Your task to perform on an android device: toggle notifications settings in the gmail app Image 0: 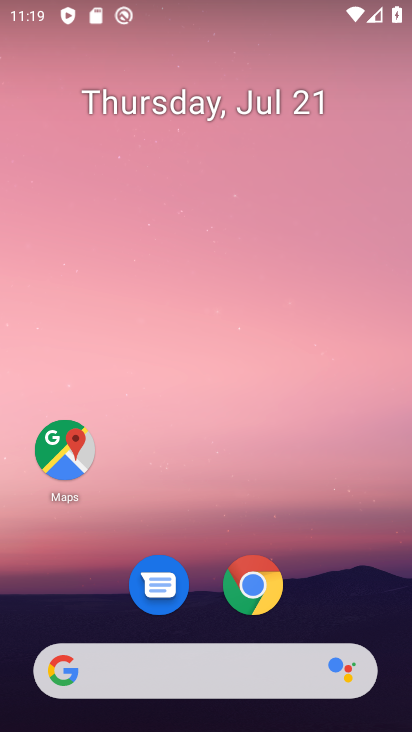
Step 0: drag from (189, 679) to (349, 177)
Your task to perform on an android device: toggle notifications settings in the gmail app Image 1: 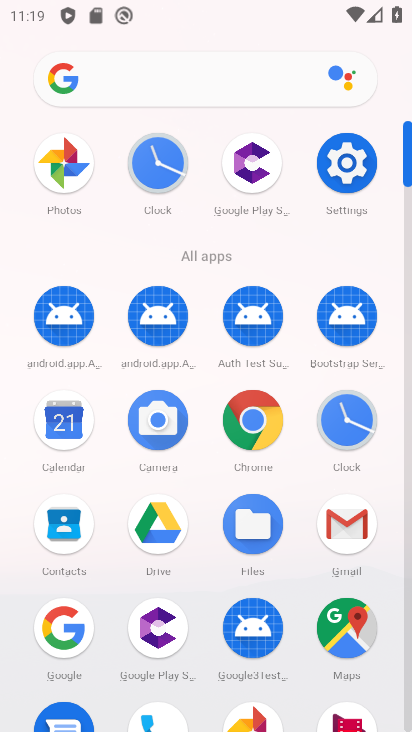
Step 1: click (359, 527)
Your task to perform on an android device: toggle notifications settings in the gmail app Image 2: 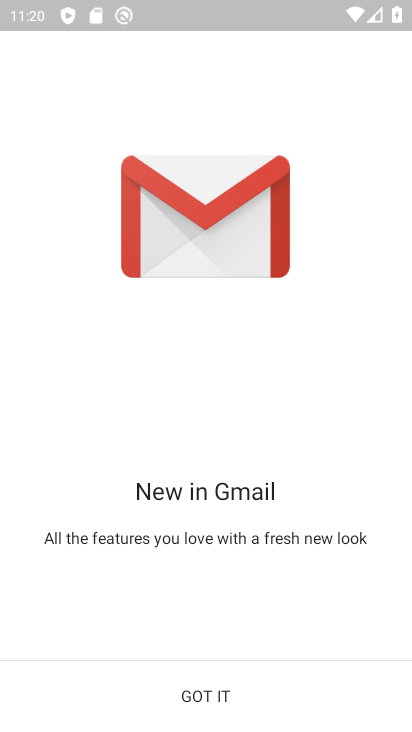
Step 2: click (219, 690)
Your task to perform on an android device: toggle notifications settings in the gmail app Image 3: 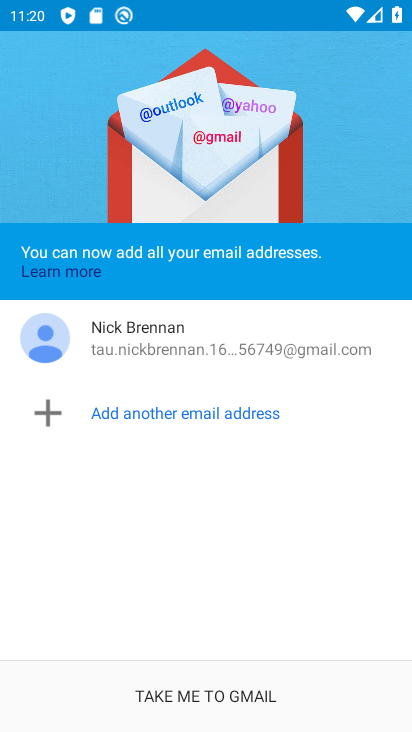
Step 3: click (219, 690)
Your task to perform on an android device: toggle notifications settings in the gmail app Image 4: 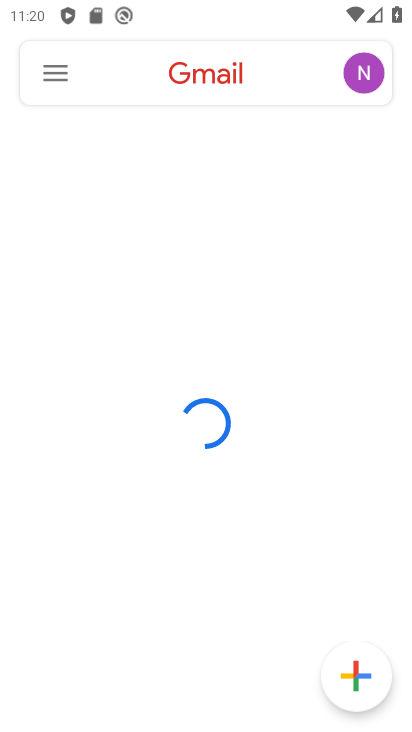
Step 4: click (50, 73)
Your task to perform on an android device: toggle notifications settings in the gmail app Image 5: 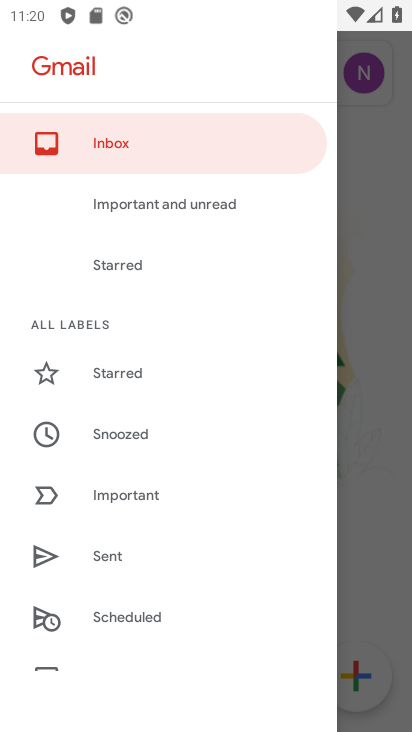
Step 5: drag from (183, 607) to (278, 109)
Your task to perform on an android device: toggle notifications settings in the gmail app Image 6: 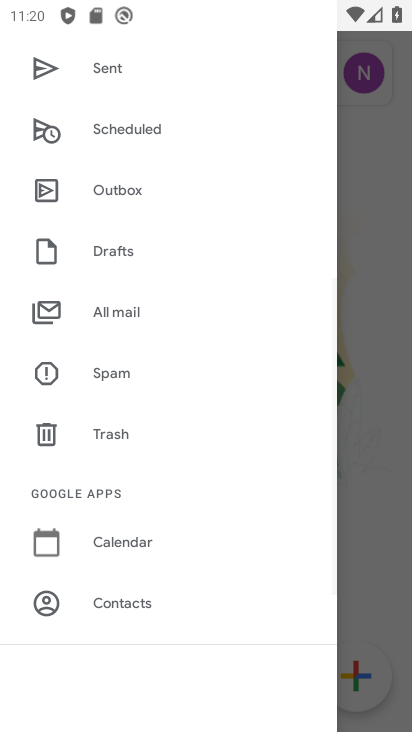
Step 6: drag from (176, 614) to (274, 88)
Your task to perform on an android device: toggle notifications settings in the gmail app Image 7: 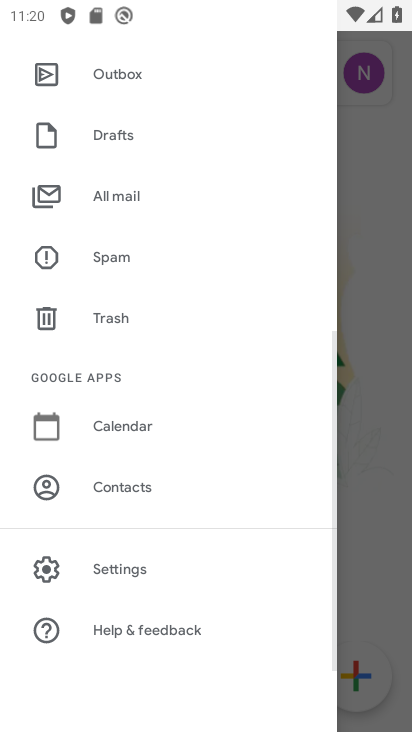
Step 7: click (124, 569)
Your task to perform on an android device: toggle notifications settings in the gmail app Image 8: 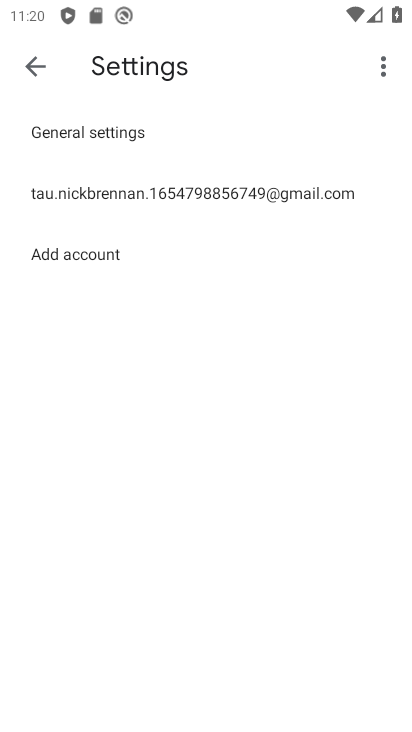
Step 8: click (234, 192)
Your task to perform on an android device: toggle notifications settings in the gmail app Image 9: 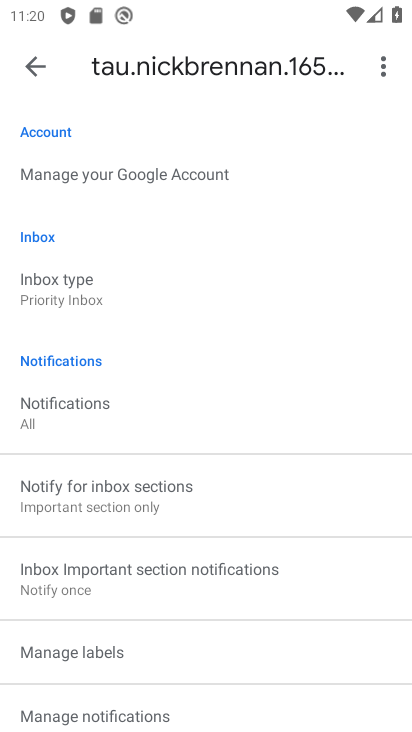
Step 9: click (65, 414)
Your task to perform on an android device: toggle notifications settings in the gmail app Image 10: 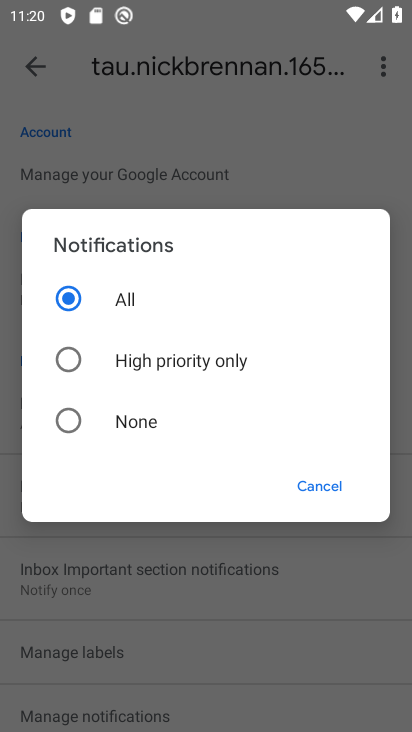
Step 10: click (67, 420)
Your task to perform on an android device: toggle notifications settings in the gmail app Image 11: 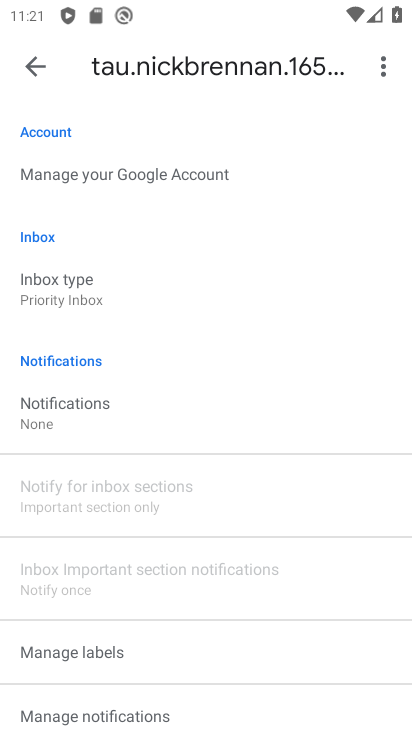
Step 11: click (67, 421)
Your task to perform on an android device: toggle notifications settings in the gmail app Image 12: 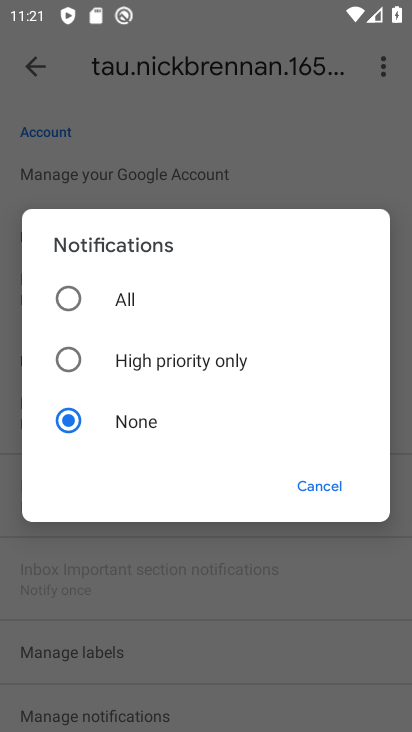
Step 12: click (62, 298)
Your task to perform on an android device: toggle notifications settings in the gmail app Image 13: 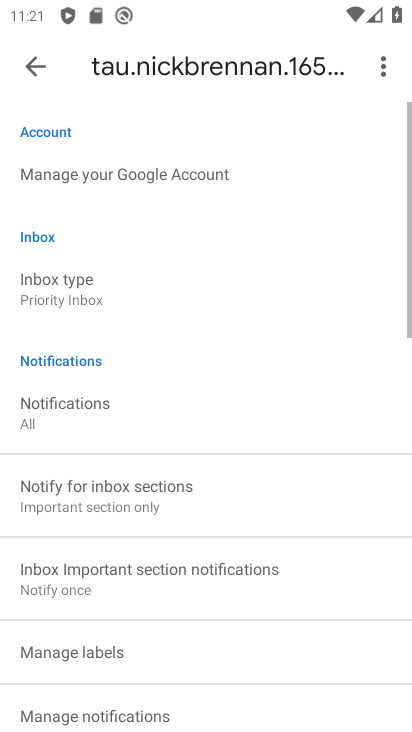
Step 13: task complete